Your task to perform on an android device: clear history in the chrome app Image 0: 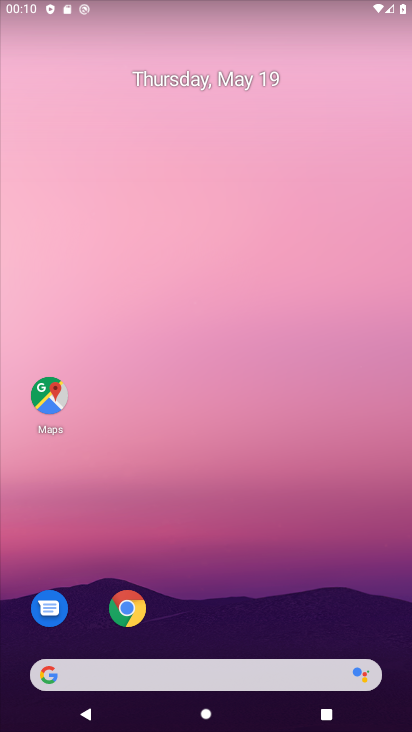
Step 0: drag from (301, 688) to (401, 97)
Your task to perform on an android device: clear history in the chrome app Image 1: 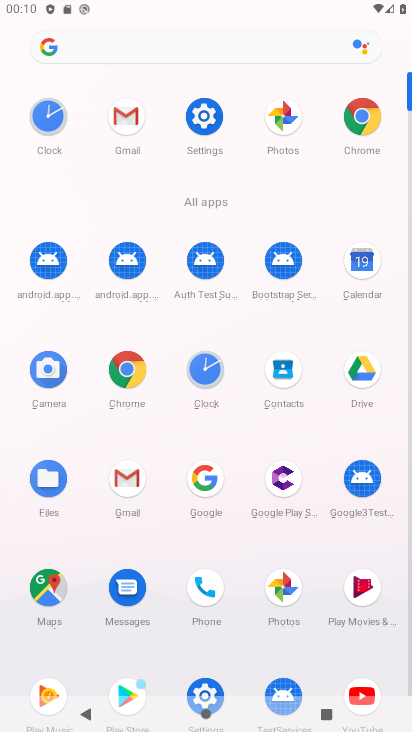
Step 1: click (145, 371)
Your task to perform on an android device: clear history in the chrome app Image 2: 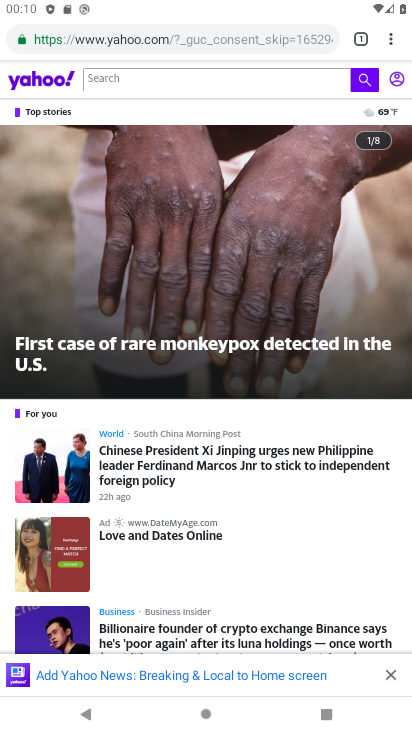
Step 2: click (385, 57)
Your task to perform on an android device: clear history in the chrome app Image 3: 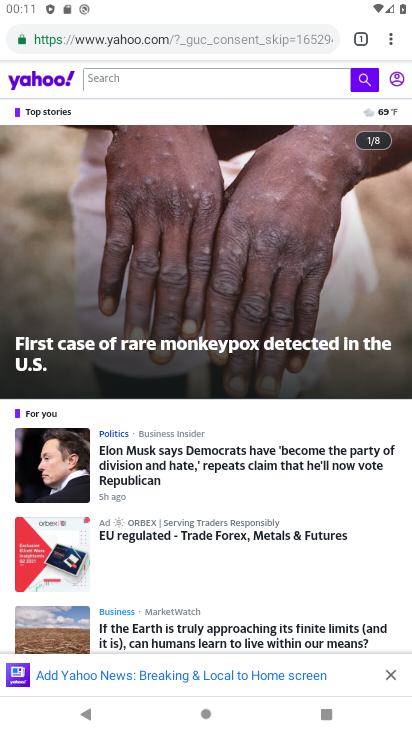
Step 3: click (393, 47)
Your task to perform on an android device: clear history in the chrome app Image 4: 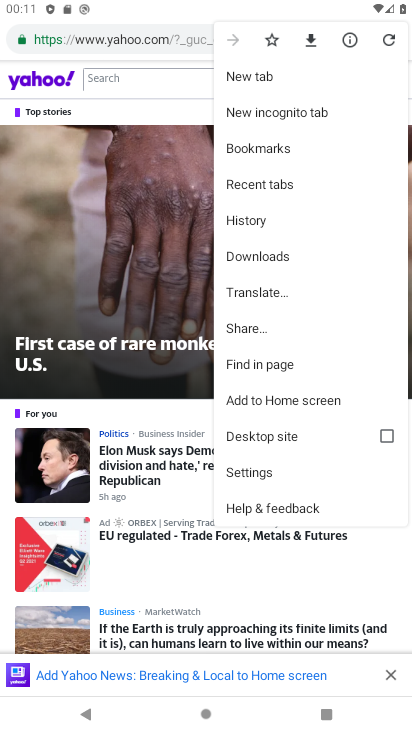
Step 4: click (273, 210)
Your task to perform on an android device: clear history in the chrome app Image 5: 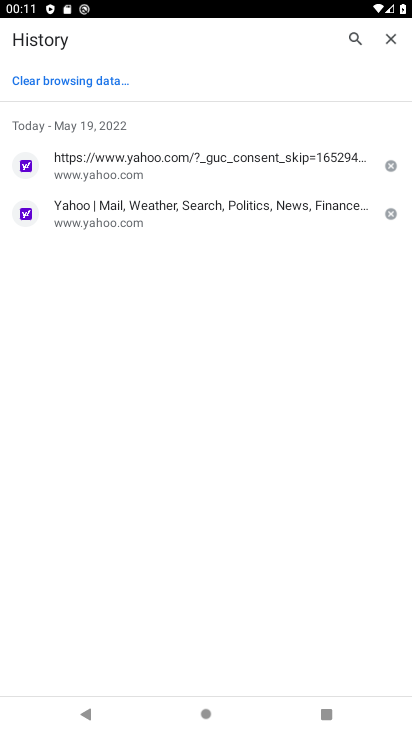
Step 5: click (51, 80)
Your task to perform on an android device: clear history in the chrome app Image 6: 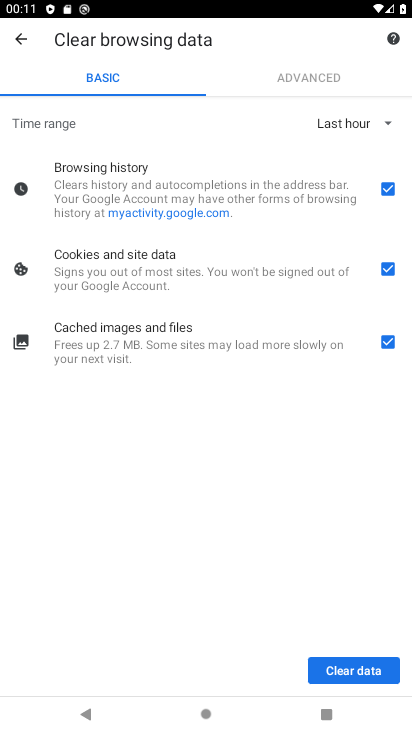
Step 6: click (340, 677)
Your task to perform on an android device: clear history in the chrome app Image 7: 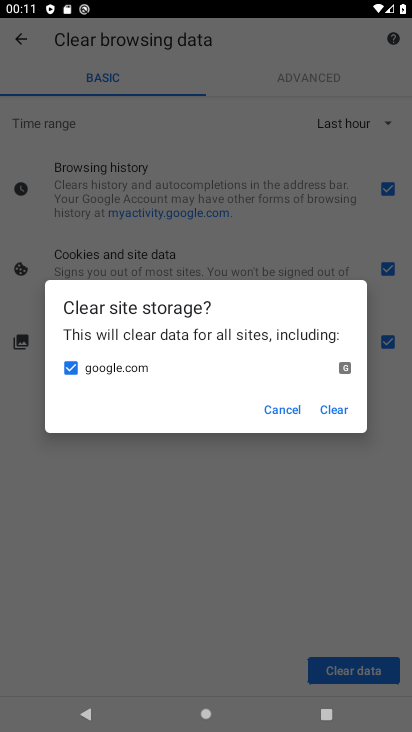
Step 7: click (325, 402)
Your task to perform on an android device: clear history in the chrome app Image 8: 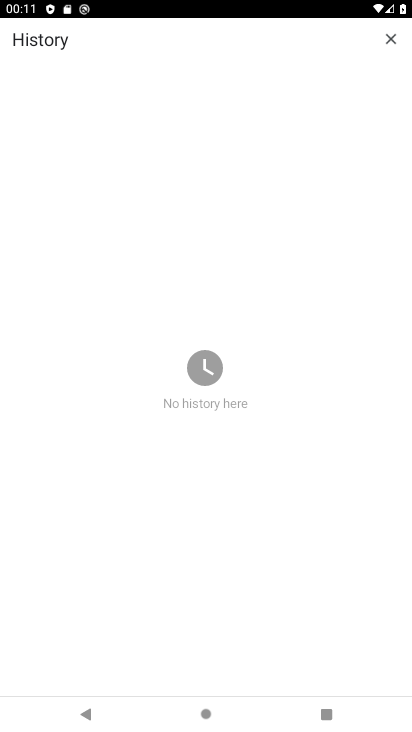
Step 8: task complete